Your task to perform on an android device: turn on data saver in the chrome app Image 0: 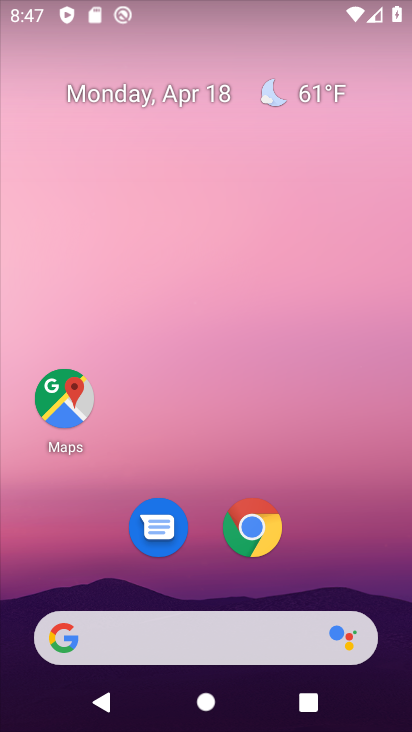
Step 0: click (256, 520)
Your task to perform on an android device: turn on data saver in the chrome app Image 1: 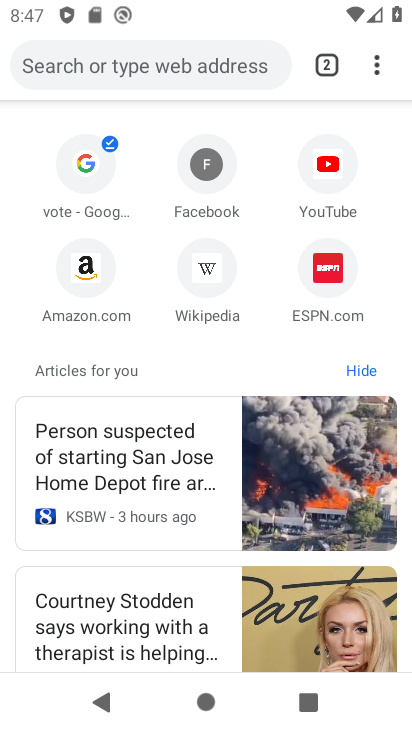
Step 1: click (379, 65)
Your task to perform on an android device: turn on data saver in the chrome app Image 2: 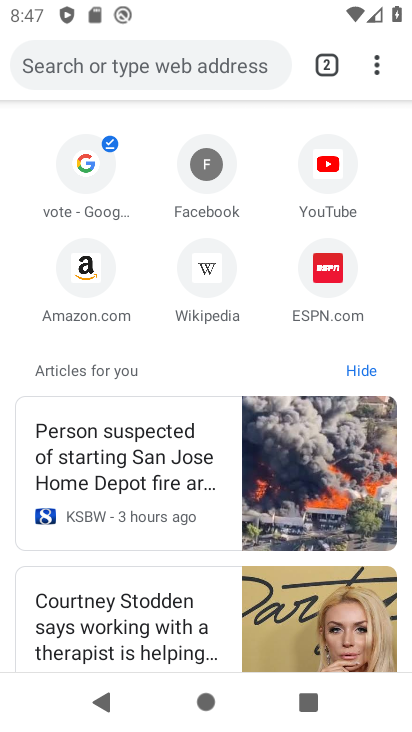
Step 2: click (379, 65)
Your task to perform on an android device: turn on data saver in the chrome app Image 3: 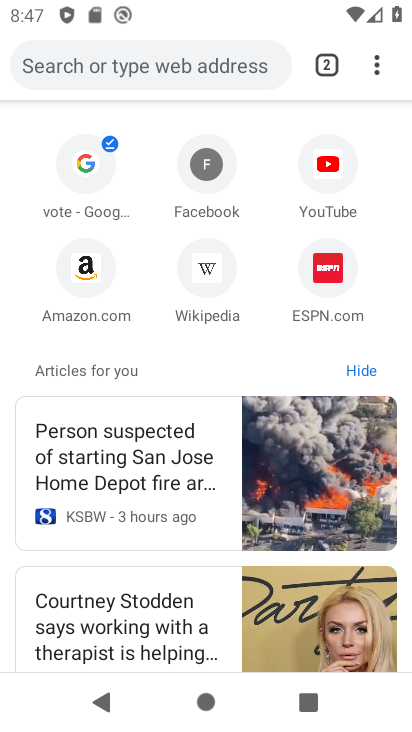
Step 3: click (379, 65)
Your task to perform on an android device: turn on data saver in the chrome app Image 4: 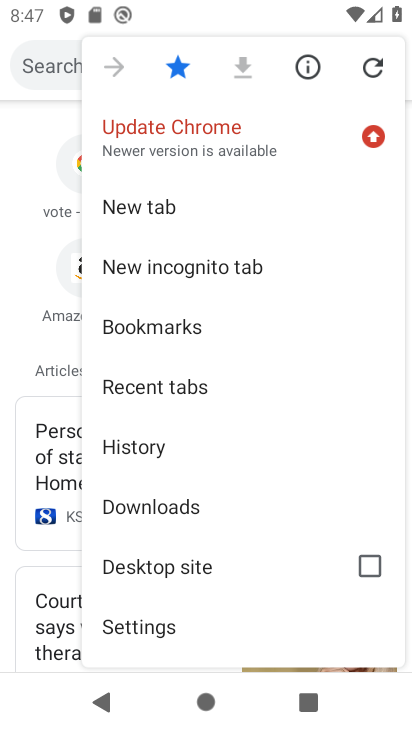
Step 4: click (133, 628)
Your task to perform on an android device: turn on data saver in the chrome app Image 5: 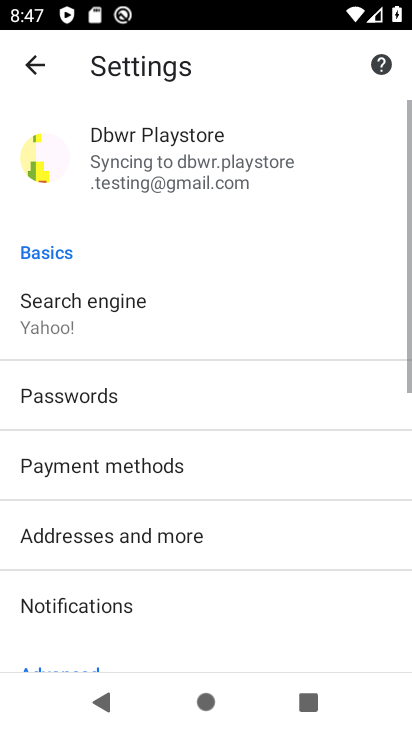
Step 5: drag from (293, 560) to (309, 183)
Your task to perform on an android device: turn on data saver in the chrome app Image 6: 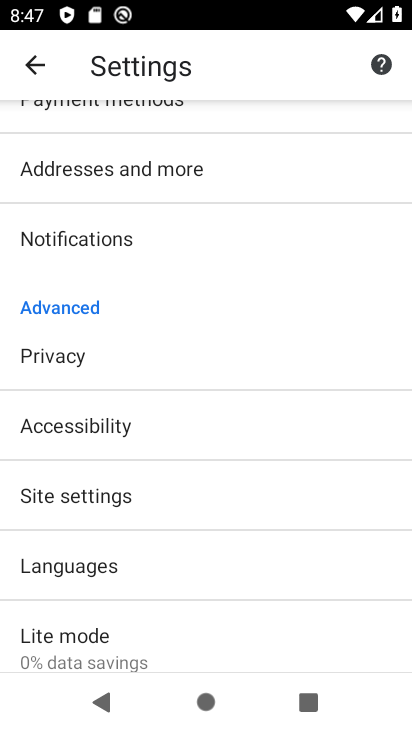
Step 6: drag from (314, 610) to (315, 427)
Your task to perform on an android device: turn on data saver in the chrome app Image 7: 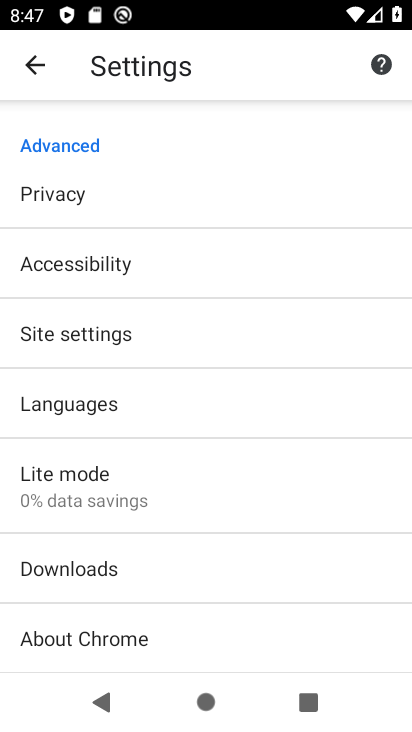
Step 7: click (89, 487)
Your task to perform on an android device: turn on data saver in the chrome app Image 8: 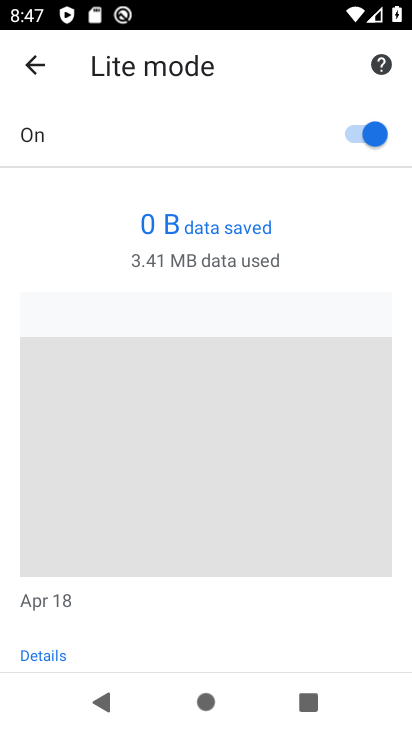
Step 8: task complete